Your task to perform on an android device: turn pop-ups off in chrome Image 0: 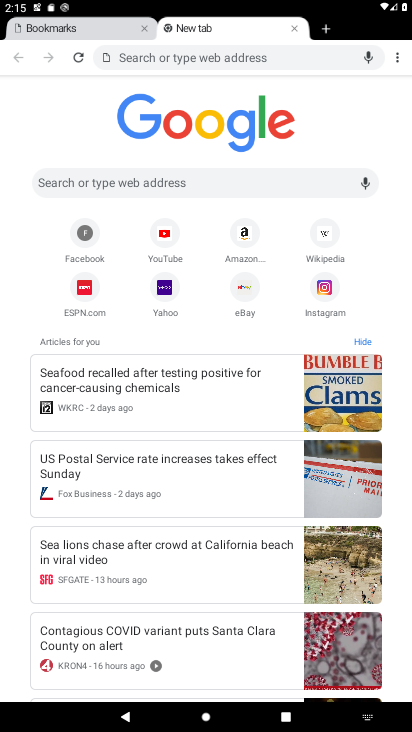
Step 0: press home button
Your task to perform on an android device: turn pop-ups off in chrome Image 1: 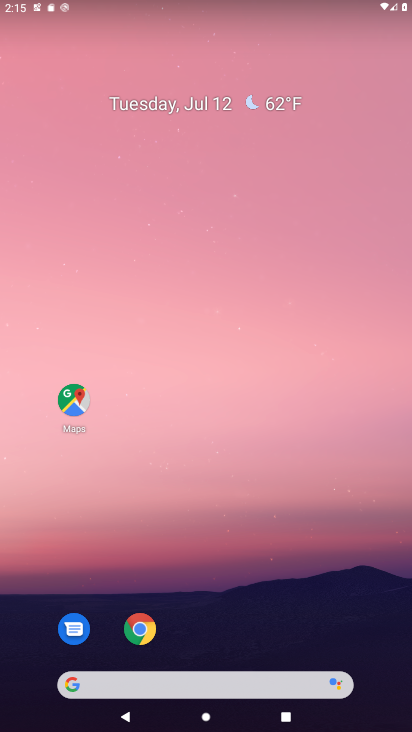
Step 1: click (137, 627)
Your task to perform on an android device: turn pop-ups off in chrome Image 2: 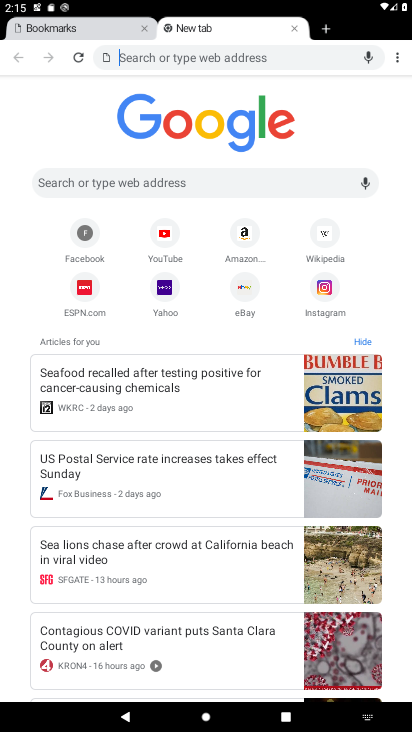
Step 2: click (396, 54)
Your task to perform on an android device: turn pop-ups off in chrome Image 3: 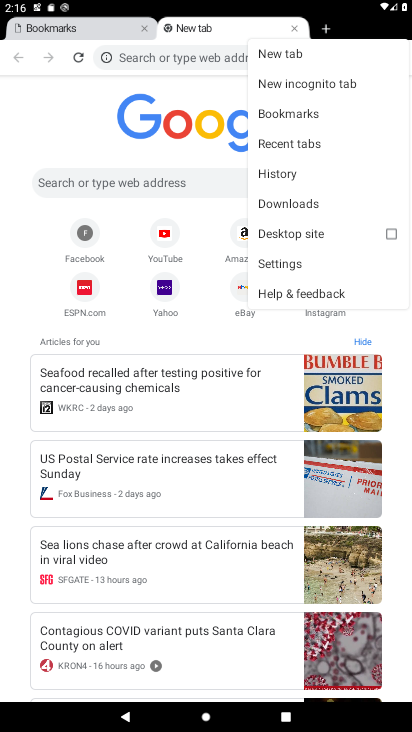
Step 3: click (303, 259)
Your task to perform on an android device: turn pop-ups off in chrome Image 4: 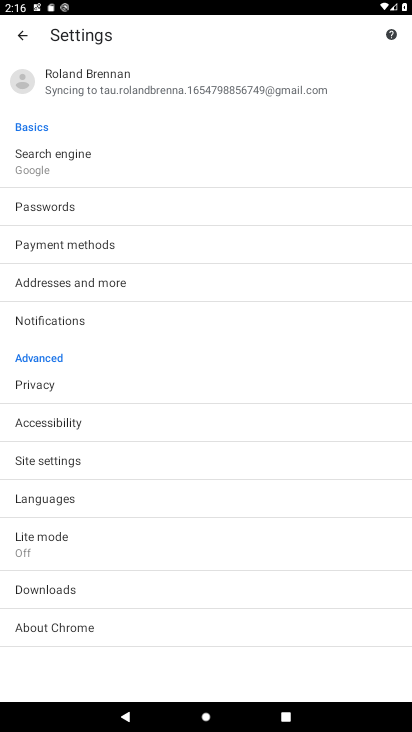
Step 4: click (90, 462)
Your task to perform on an android device: turn pop-ups off in chrome Image 5: 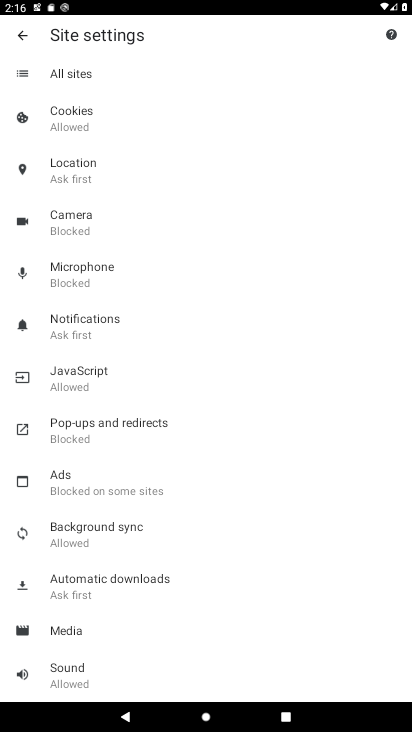
Step 5: click (109, 433)
Your task to perform on an android device: turn pop-ups off in chrome Image 6: 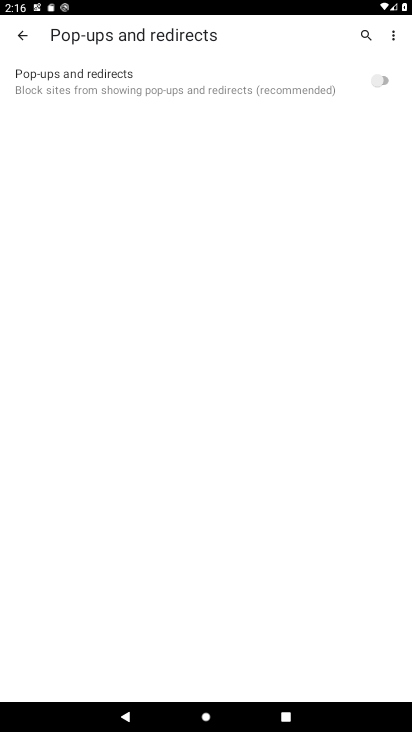
Step 6: task complete